Your task to perform on an android device: find which apps use the phone's location Image 0: 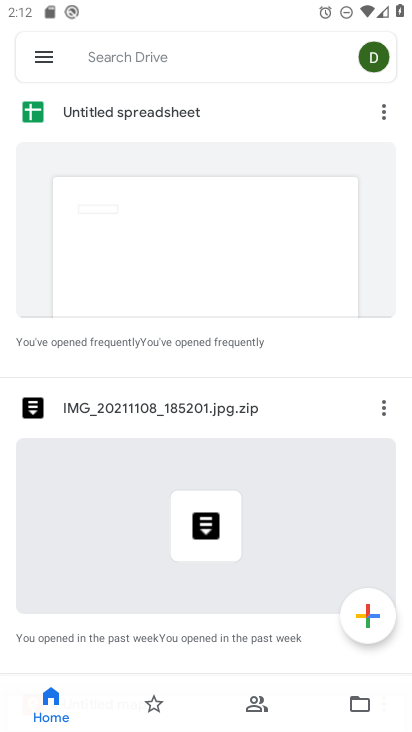
Step 0: press home button
Your task to perform on an android device: find which apps use the phone's location Image 1: 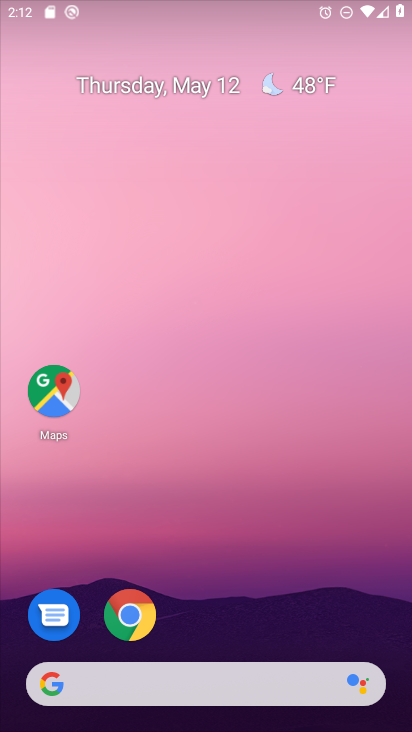
Step 1: drag from (266, 665) to (301, 50)
Your task to perform on an android device: find which apps use the phone's location Image 2: 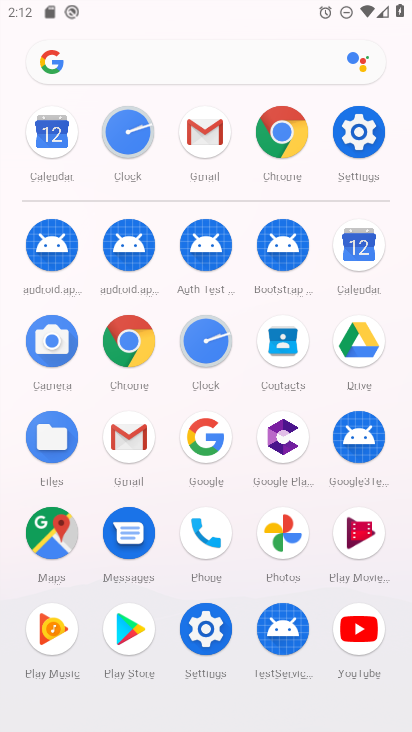
Step 2: click (363, 130)
Your task to perform on an android device: find which apps use the phone's location Image 3: 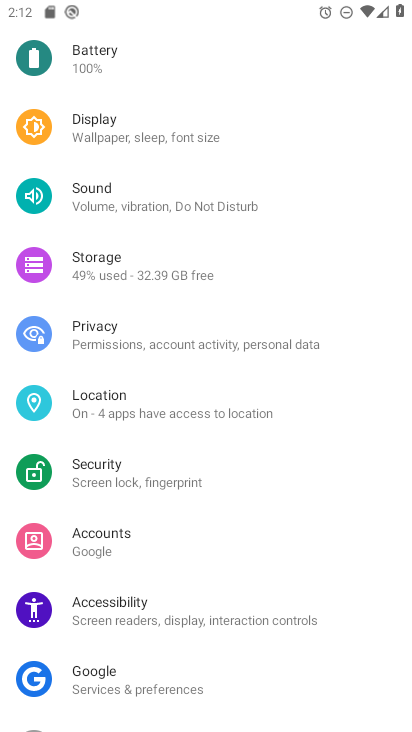
Step 3: drag from (291, 176) to (303, 620)
Your task to perform on an android device: find which apps use the phone's location Image 4: 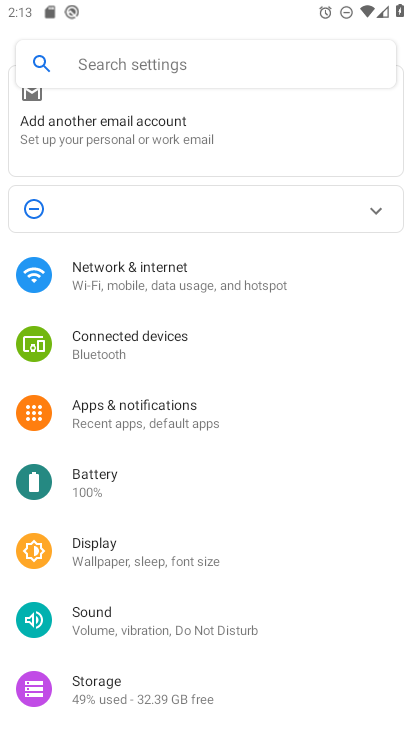
Step 4: drag from (142, 648) to (161, 271)
Your task to perform on an android device: find which apps use the phone's location Image 5: 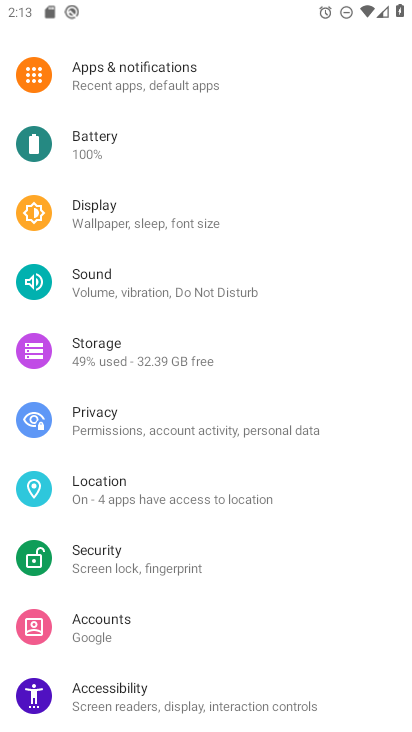
Step 5: click (144, 492)
Your task to perform on an android device: find which apps use the phone's location Image 6: 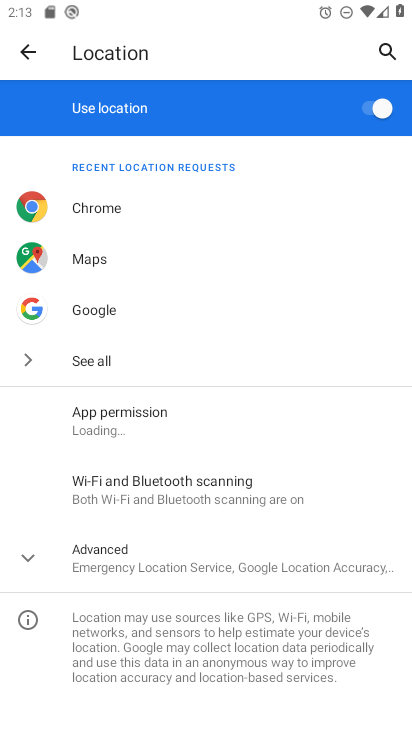
Step 6: click (162, 424)
Your task to perform on an android device: find which apps use the phone's location Image 7: 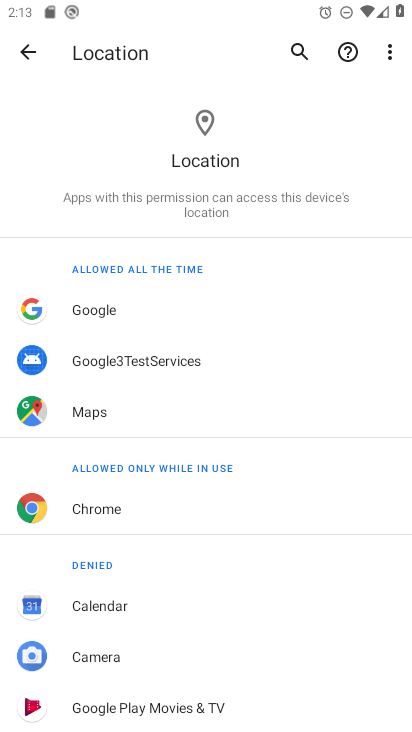
Step 7: task complete